Your task to perform on an android device: Open ESPN.com Image 0: 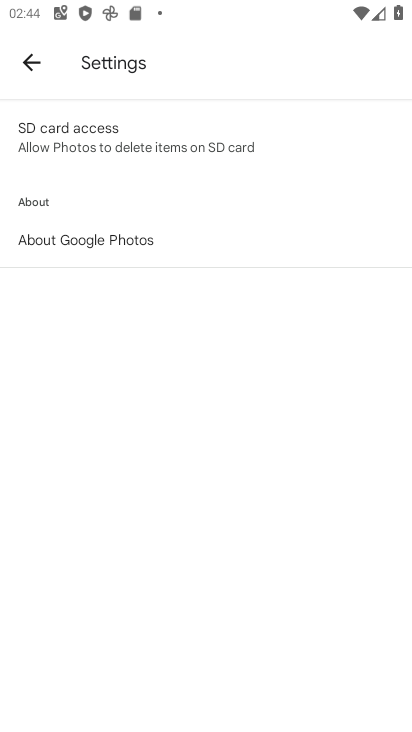
Step 0: press home button
Your task to perform on an android device: Open ESPN.com Image 1: 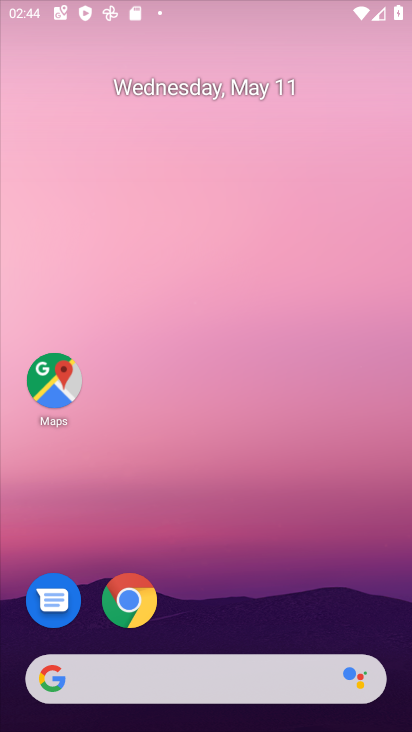
Step 1: click (126, 659)
Your task to perform on an android device: Open ESPN.com Image 2: 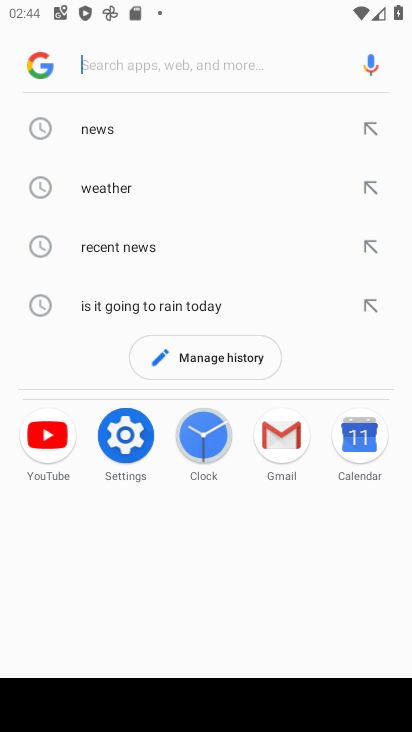
Step 2: type "espn.com"
Your task to perform on an android device: Open ESPN.com Image 3: 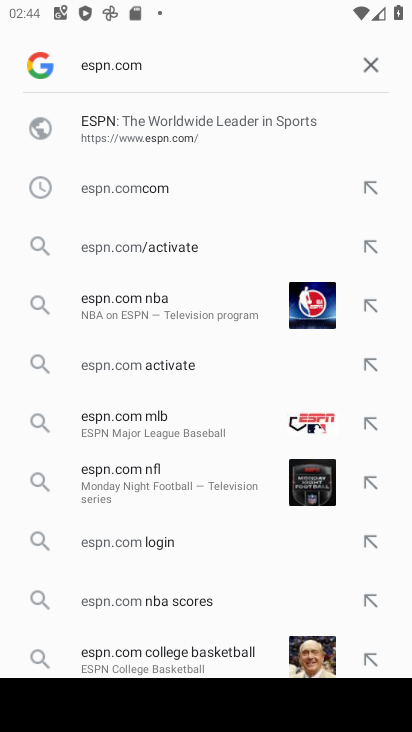
Step 3: click (234, 134)
Your task to perform on an android device: Open ESPN.com Image 4: 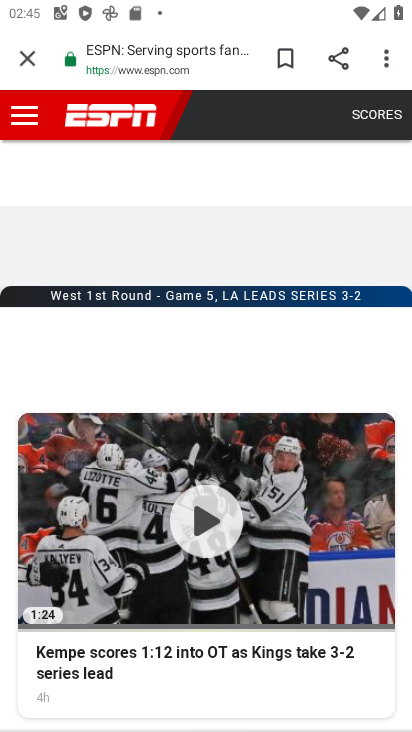
Step 4: task complete